Your task to perform on an android device: toggle pop-ups in chrome Image 0: 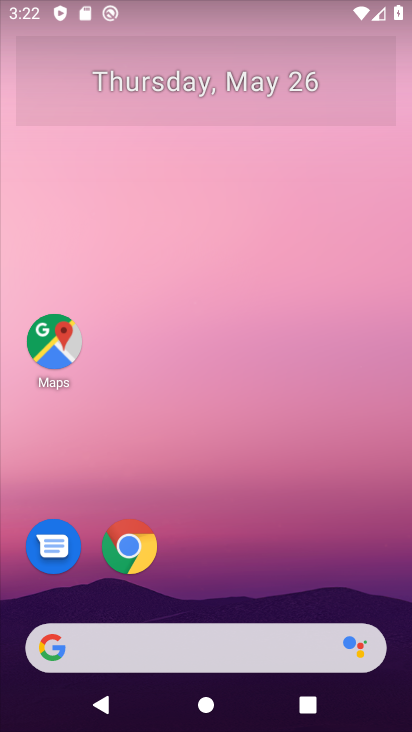
Step 0: click (140, 540)
Your task to perform on an android device: toggle pop-ups in chrome Image 1: 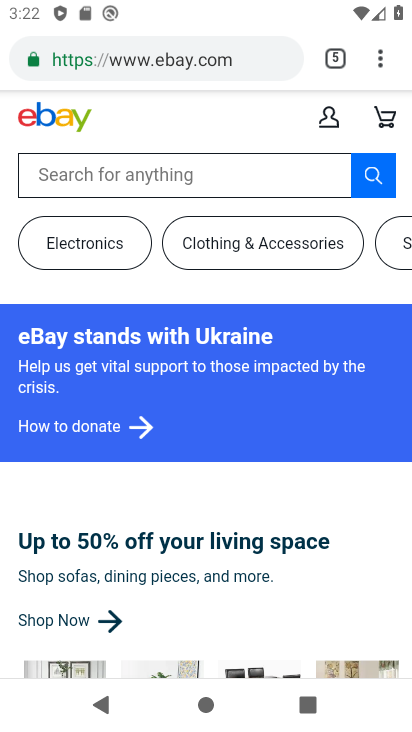
Step 1: click (385, 58)
Your task to perform on an android device: toggle pop-ups in chrome Image 2: 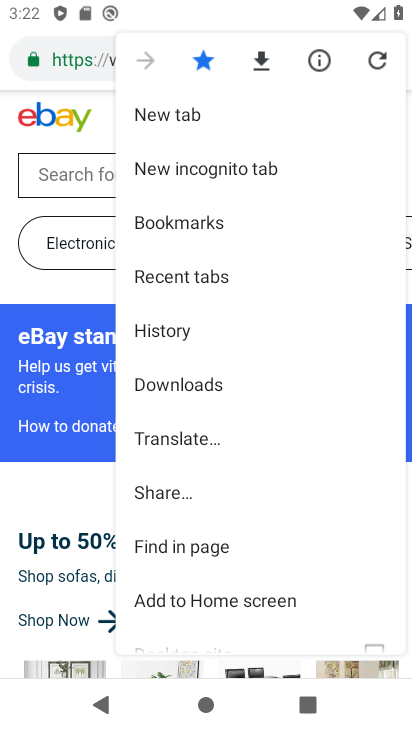
Step 2: drag from (255, 532) to (245, 90)
Your task to perform on an android device: toggle pop-ups in chrome Image 3: 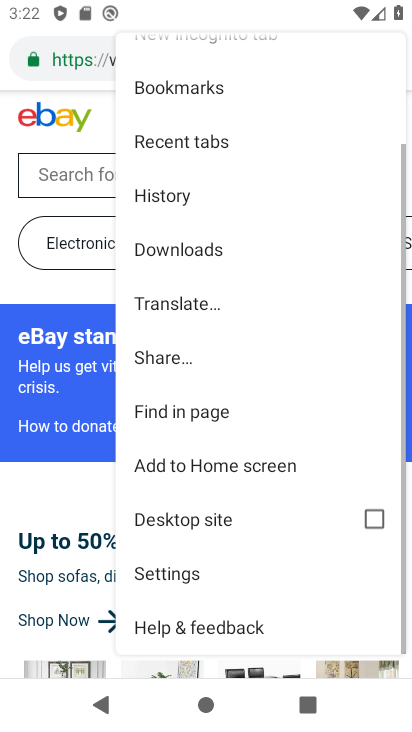
Step 3: click (180, 571)
Your task to perform on an android device: toggle pop-ups in chrome Image 4: 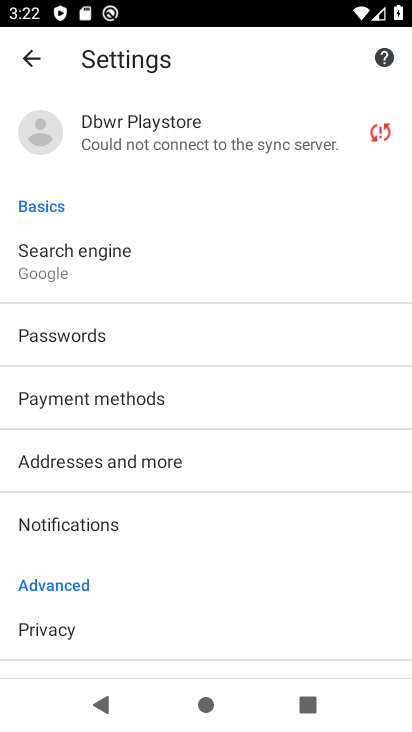
Step 4: drag from (214, 568) to (218, 178)
Your task to perform on an android device: toggle pop-ups in chrome Image 5: 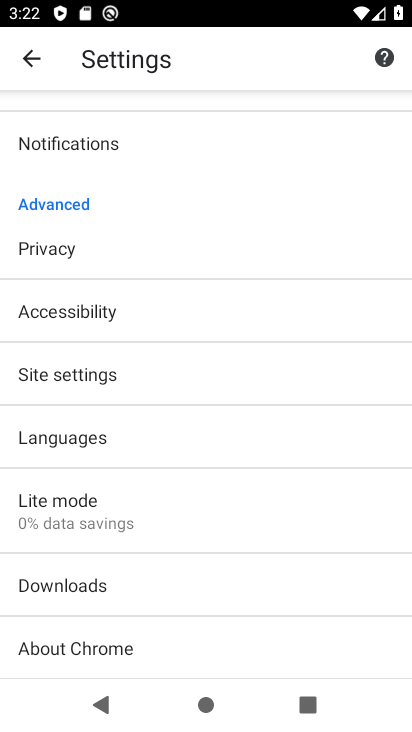
Step 5: drag from (205, 562) to (216, 182)
Your task to perform on an android device: toggle pop-ups in chrome Image 6: 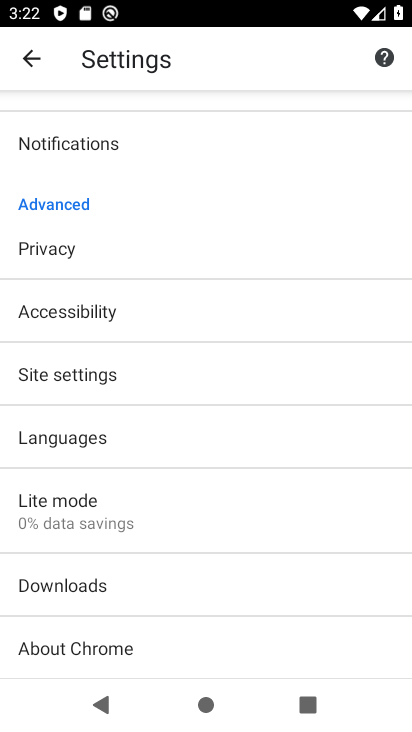
Step 6: click (132, 368)
Your task to perform on an android device: toggle pop-ups in chrome Image 7: 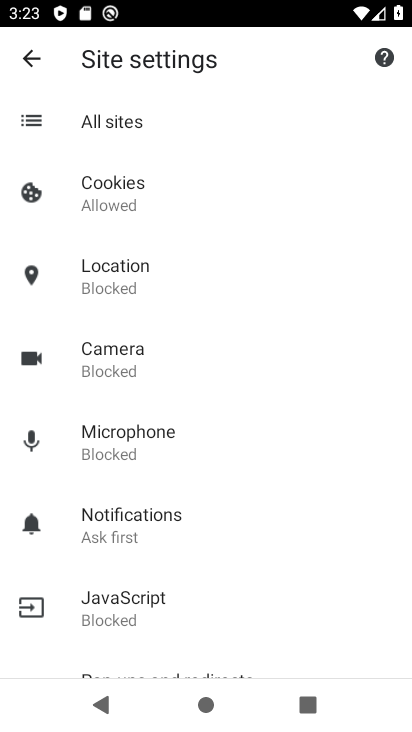
Step 7: click (229, 198)
Your task to perform on an android device: toggle pop-ups in chrome Image 8: 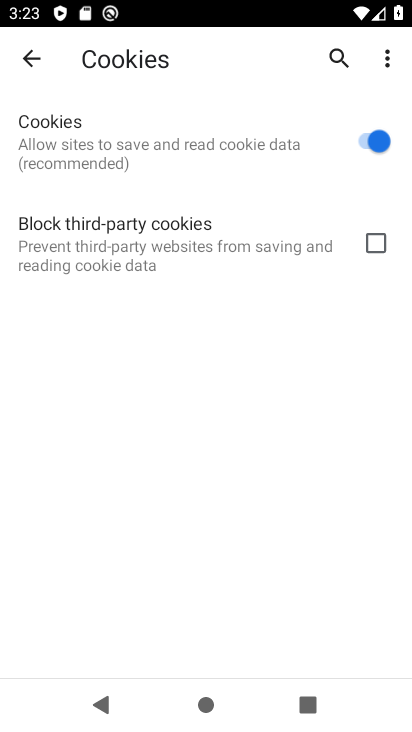
Step 8: click (43, 58)
Your task to perform on an android device: toggle pop-ups in chrome Image 9: 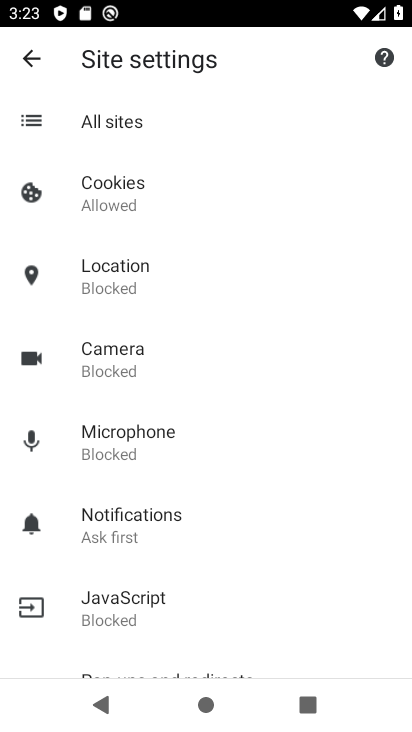
Step 9: click (222, 115)
Your task to perform on an android device: toggle pop-ups in chrome Image 10: 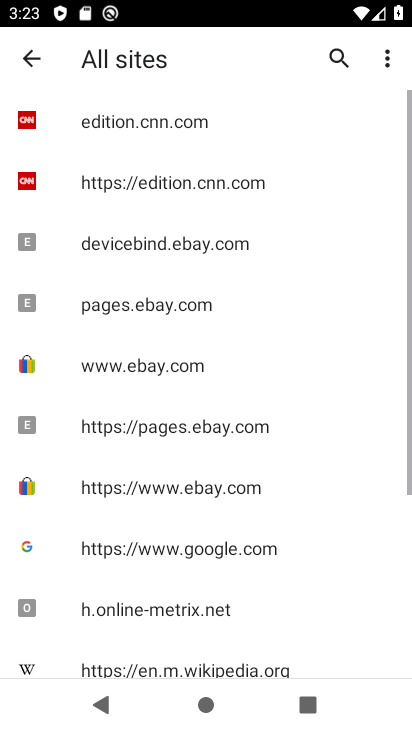
Step 10: drag from (201, 600) to (184, 225)
Your task to perform on an android device: toggle pop-ups in chrome Image 11: 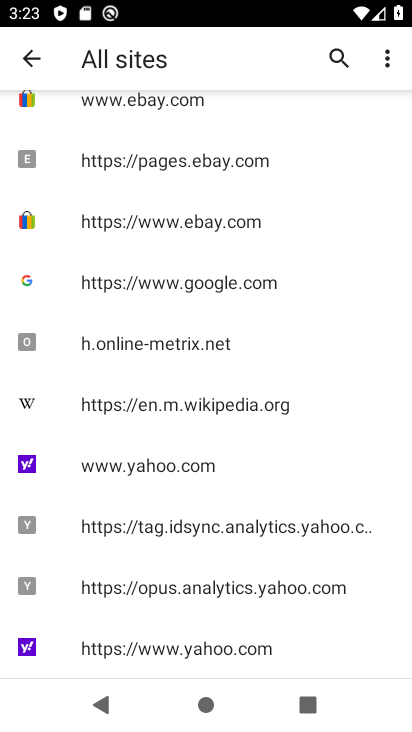
Step 11: click (18, 50)
Your task to perform on an android device: toggle pop-ups in chrome Image 12: 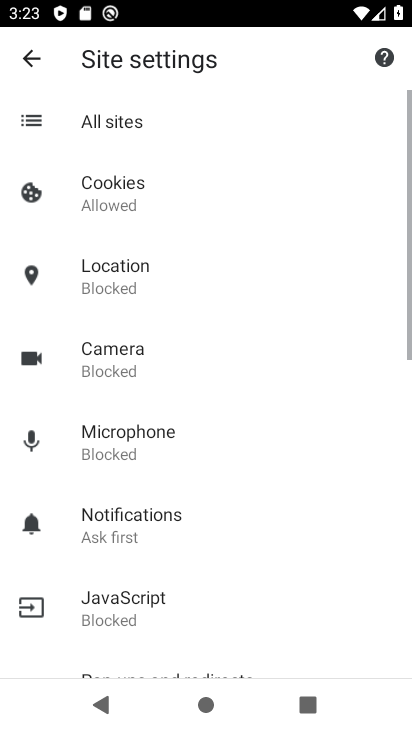
Step 12: drag from (181, 627) to (203, 125)
Your task to perform on an android device: toggle pop-ups in chrome Image 13: 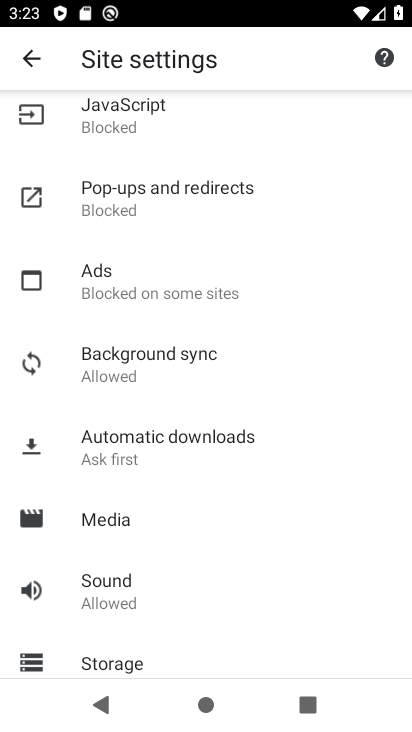
Step 13: click (201, 198)
Your task to perform on an android device: toggle pop-ups in chrome Image 14: 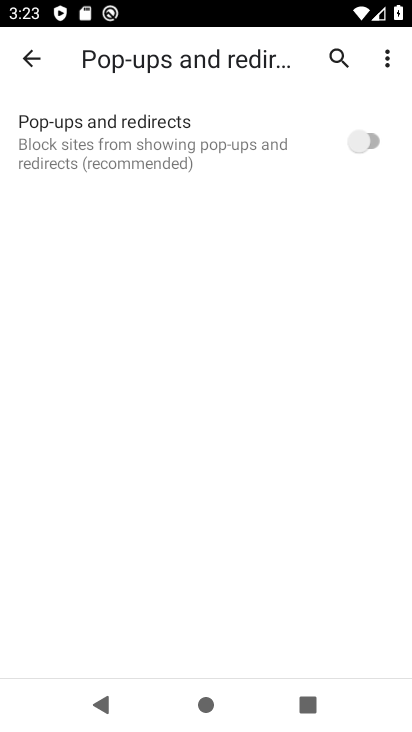
Step 14: click (360, 139)
Your task to perform on an android device: toggle pop-ups in chrome Image 15: 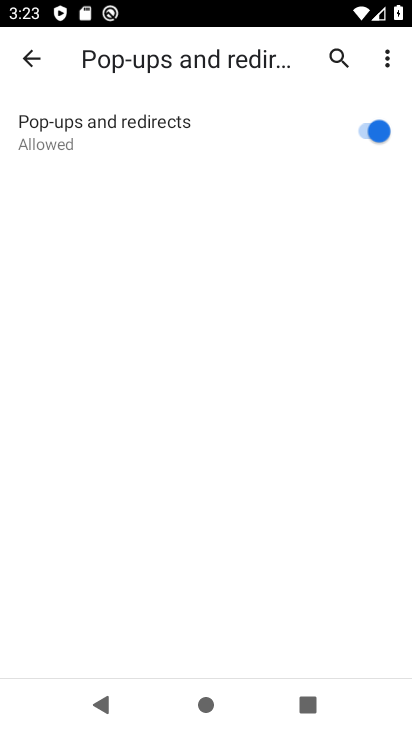
Step 15: task complete